Your task to perform on an android device: see tabs open on other devices in the chrome app Image 0: 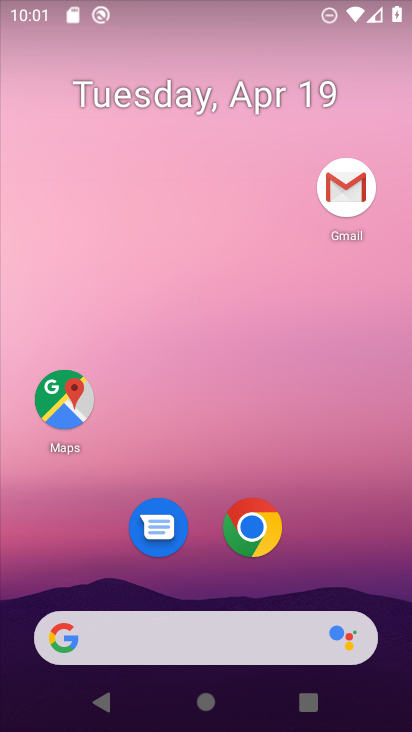
Step 0: drag from (392, 505) to (350, 106)
Your task to perform on an android device: see tabs open on other devices in the chrome app Image 1: 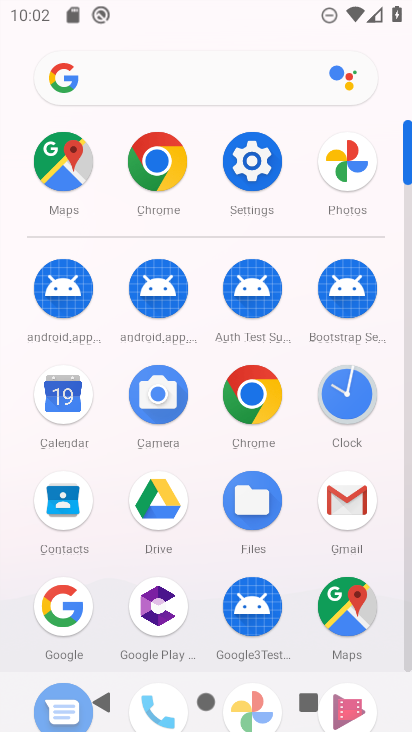
Step 1: click (236, 413)
Your task to perform on an android device: see tabs open on other devices in the chrome app Image 2: 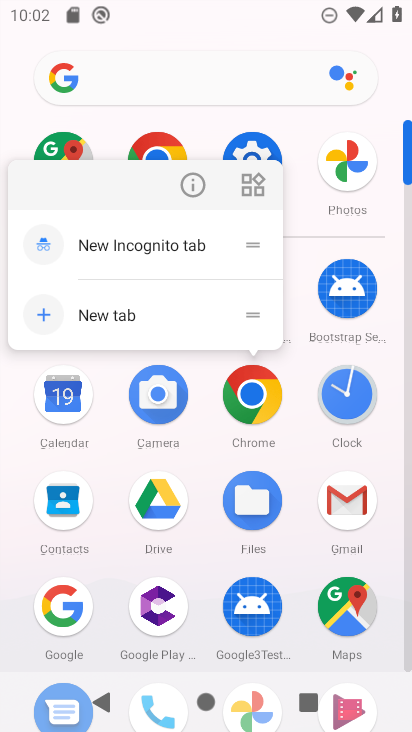
Step 2: click (238, 413)
Your task to perform on an android device: see tabs open on other devices in the chrome app Image 3: 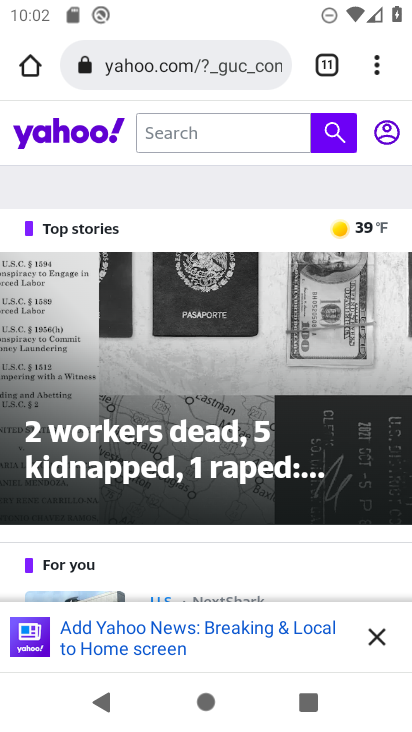
Step 3: click (330, 70)
Your task to perform on an android device: see tabs open on other devices in the chrome app Image 4: 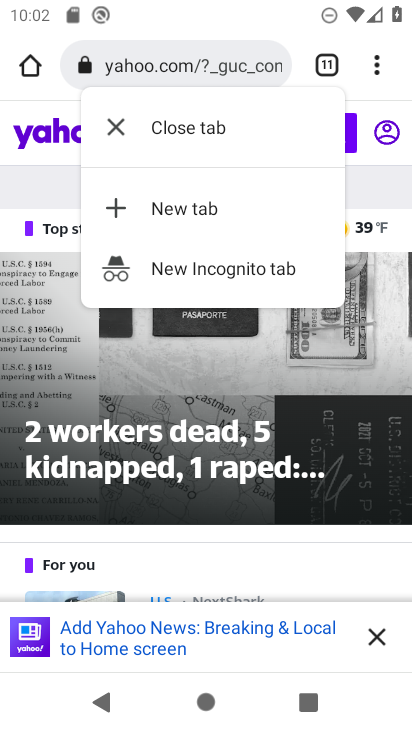
Step 4: click (329, 72)
Your task to perform on an android device: see tabs open on other devices in the chrome app Image 5: 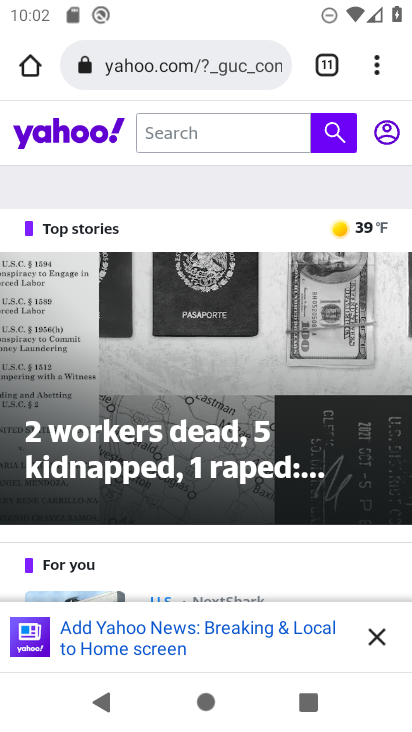
Step 5: click (320, 58)
Your task to perform on an android device: see tabs open on other devices in the chrome app Image 6: 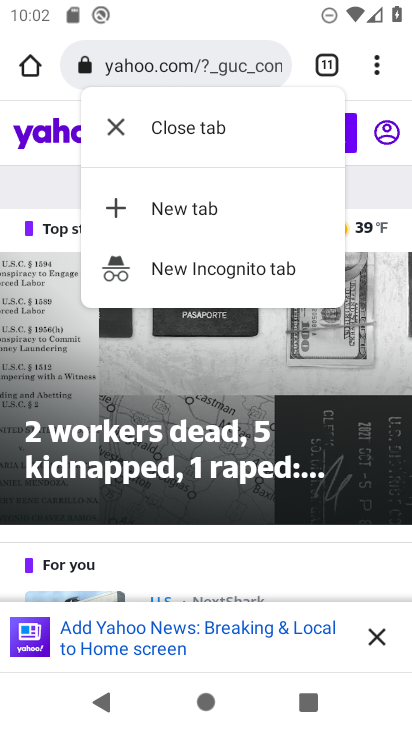
Step 6: click (322, 64)
Your task to perform on an android device: see tabs open on other devices in the chrome app Image 7: 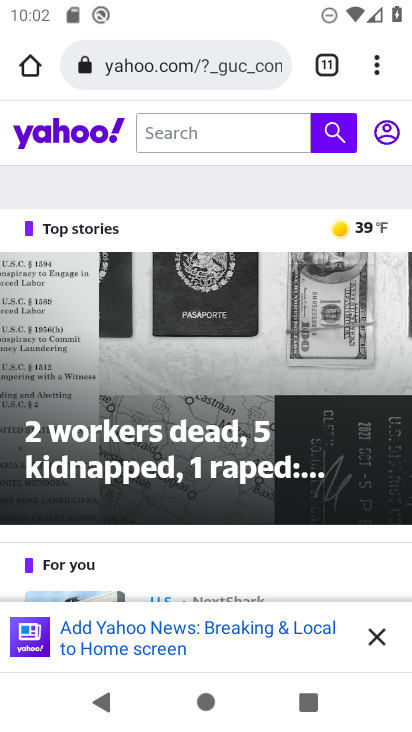
Step 7: task complete